Your task to perform on an android device: Show me popular videos on Youtube Image 0: 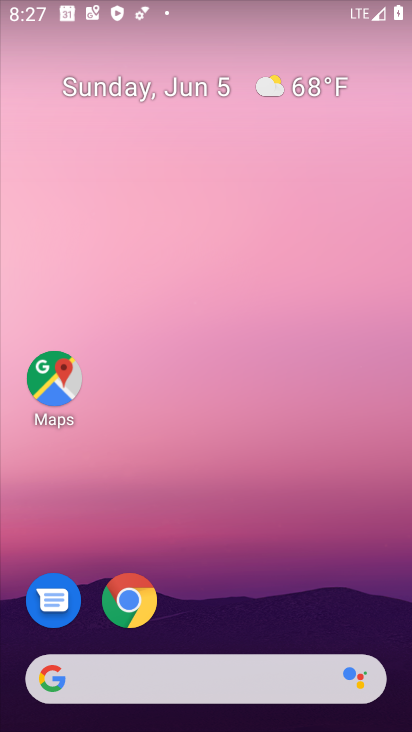
Step 0: drag from (251, 534) to (287, 0)
Your task to perform on an android device: Show me popular videos on Youtube Image 1: 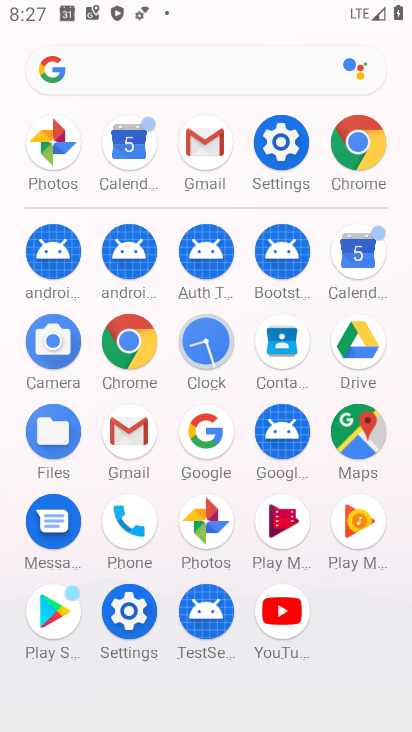
Step 1: click (290, 607)
Your task to perform on an android device: Show me popular videos on Youtube Image 2: 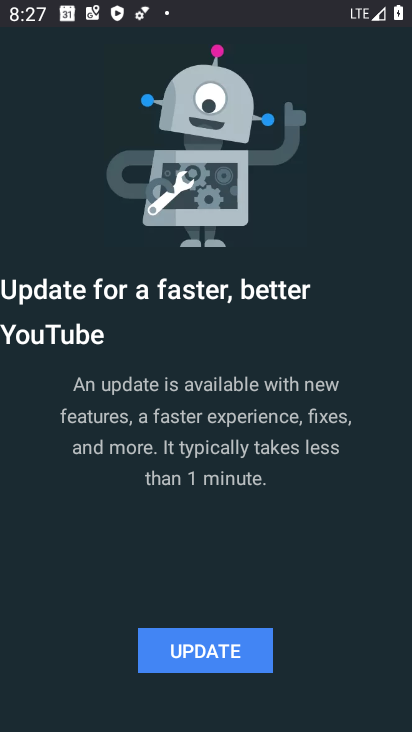
Step 2: click (264, 646)
Your task to perform on an android device: Show me popular videos on Youtube Image 3: 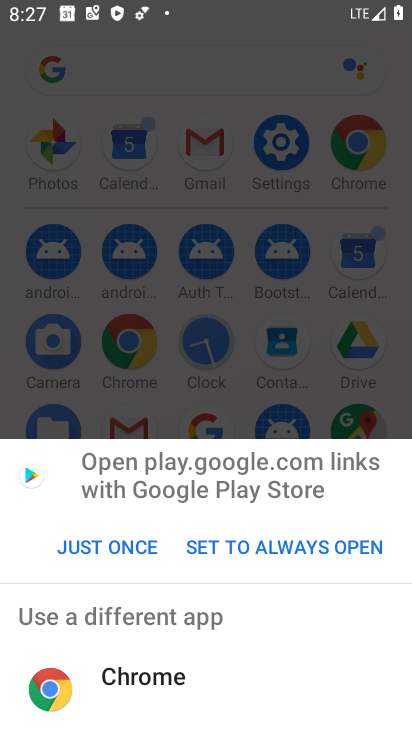
Step 3: click (137, 548)
Your task to perform on an android device: Show me popular videos on Youtube Image 4: 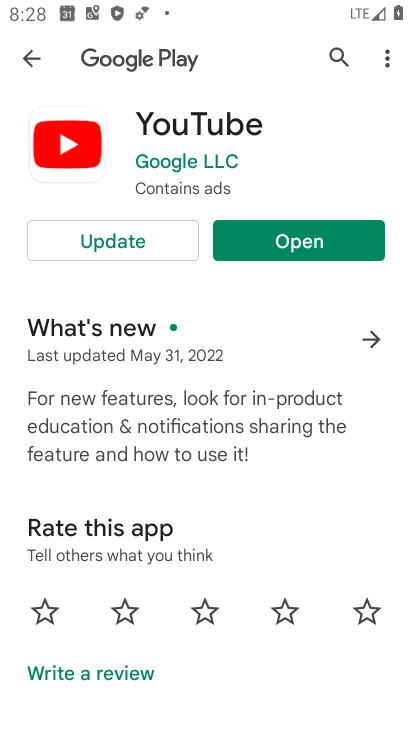
Step 4: click (175, 234)
Your task to perform on an android device: Show me popular videos on Youtube Image 5: 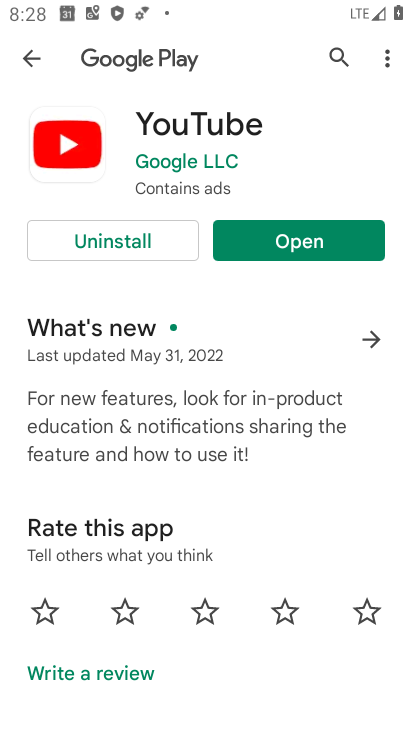
Step 5: click (345, 241)
Your task to perform on an android device: Show me popular videos on Youtube Image 6: 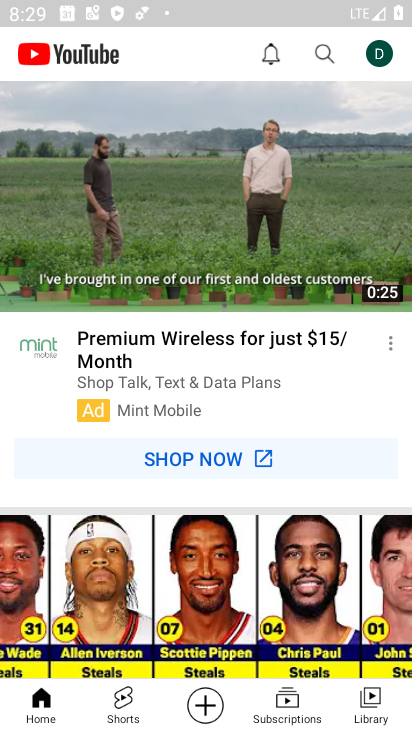
Step 6: click (325, 51)
Your task to perform on an android device: Show me popular videos on Youtube Image 7: 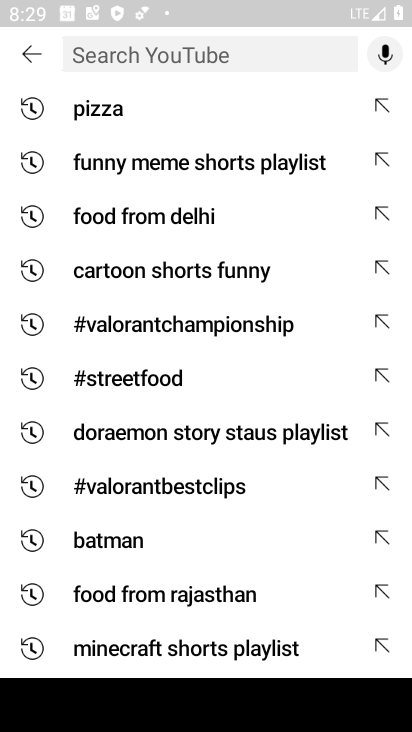
Step 7: type "popular videos"
Your task to perform on an android device: Show me popular videos on Youtube Image 8: 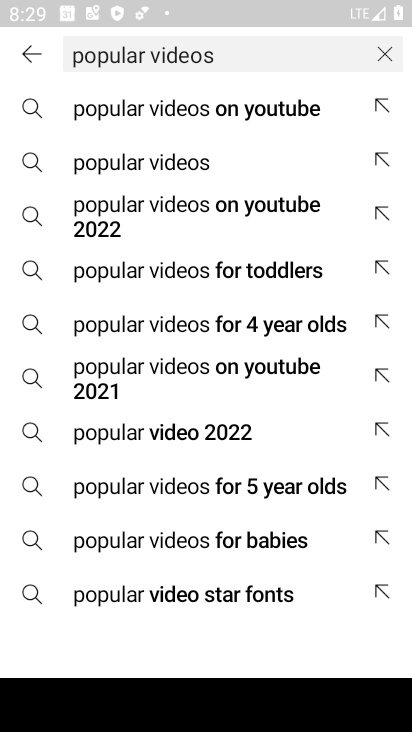
Step 8: click (251, 109)
Your task to perform on an android device: Show me popular videos on Youtube Image 9: 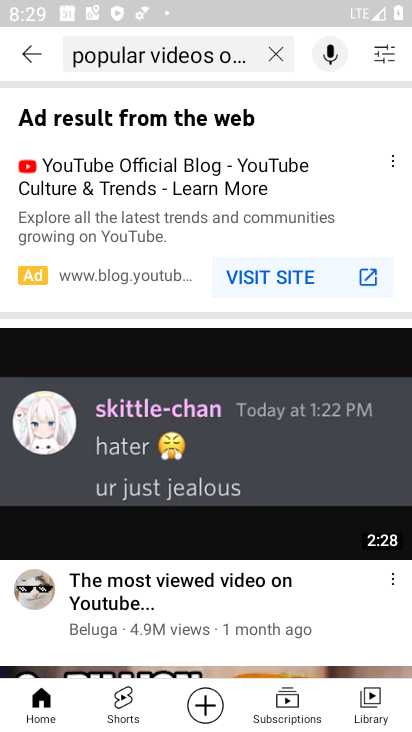
Step 9: task complete